Your task to perform on an android device: Do I have any events this weekend? Image 0: 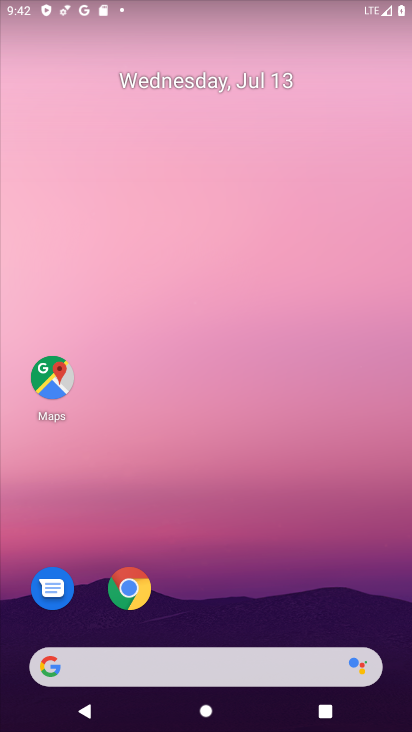
Step 0: drag from (197, 631) to (241, 94)
Your task to perform on an android device: Do I have any events this weekend? Image 1: 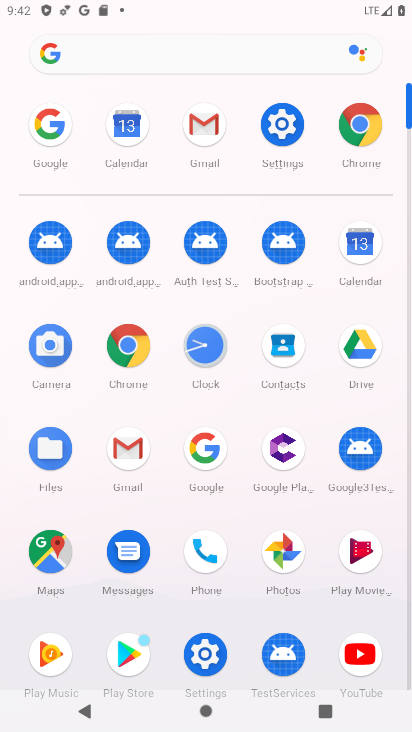
Step 1: click (359, 237)
Your task to perform on an android device: Do I have any events this weekend? Image 2: 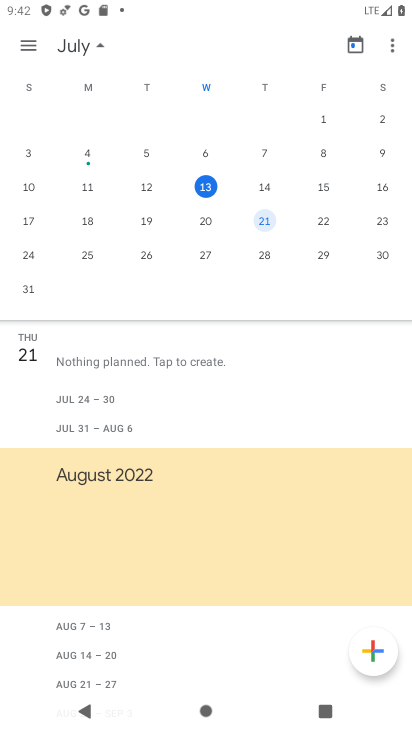
Step 2: task complete